Your task to perform on an android device: move a message to another label in the gmail app Image 0: 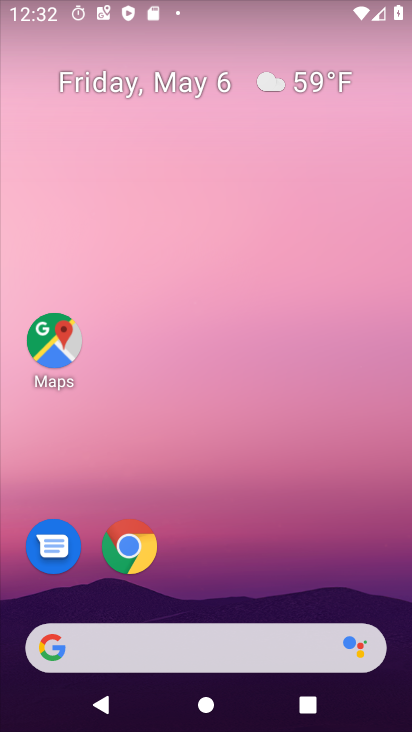
Step 0: drag from (279, 606) to (252, 114)
Your task to perform on an android device: move a message to another label in the gmail app Image 1: 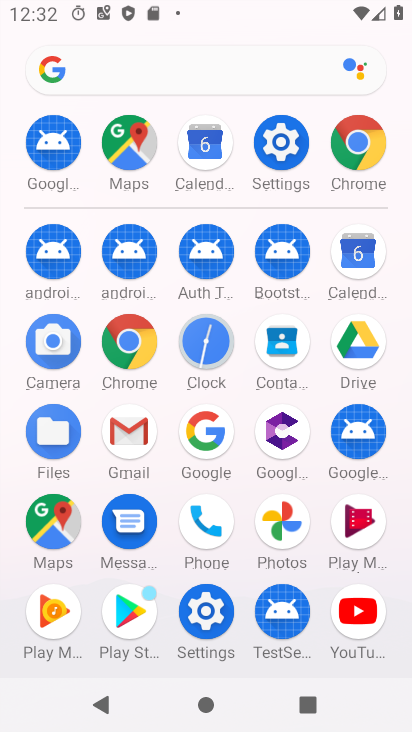
Step 1: click (129, 434)
Your task to perform on an android device: move a message to another label in the gmail app Image 2: 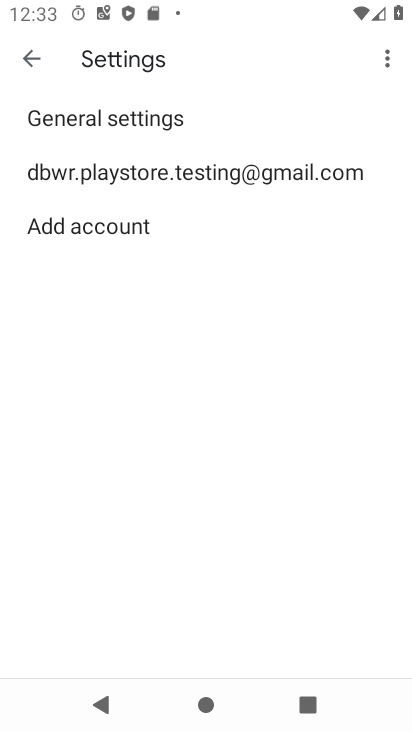
Step 2: click (39, 61)
Your task to perform on an android device: move a message to another label in the gmail app Image 3: 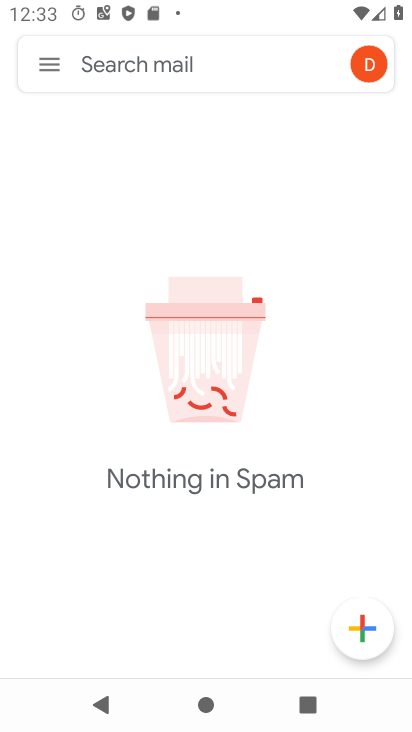
Step 3: click (57, 60)
Your task to perform on an android device: move a message to another label in the gmail app Image 4: 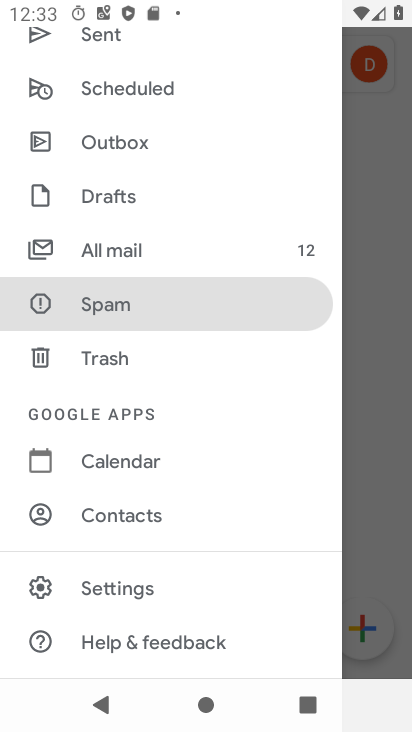
Step 4: drag from (225, 160) to (172, 621)
Your task to perform on an android device: move a message to another label in the gmail app Image 5: 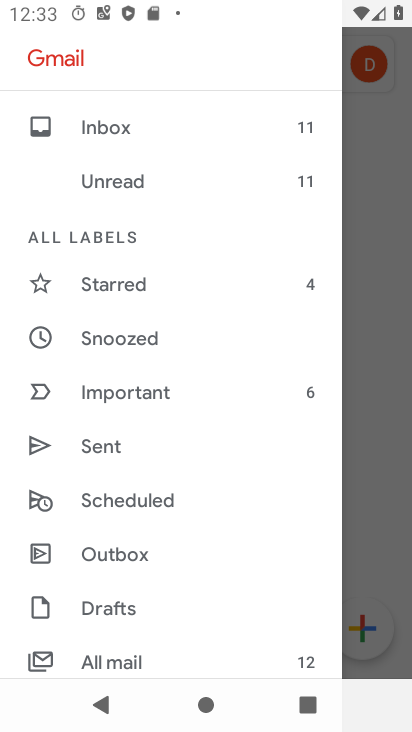
Step 5: click (140, 130)
Your task to perform on an android device: move a message to another label in the gmail app Image 6: 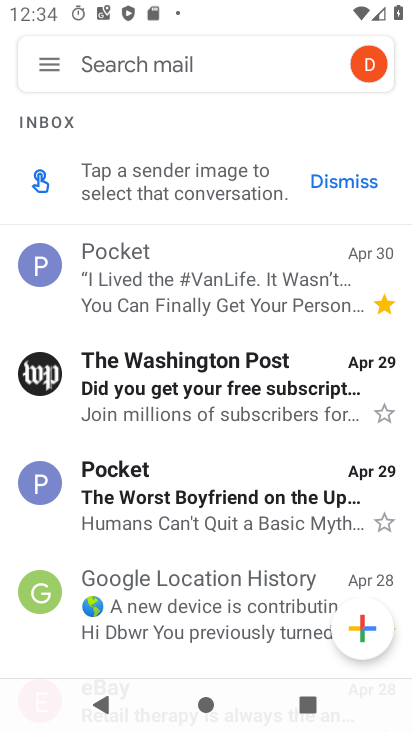
Step 6: click (312, 279)
Your task to perform on an android device: move a message to another label in the gmail app Image 7: 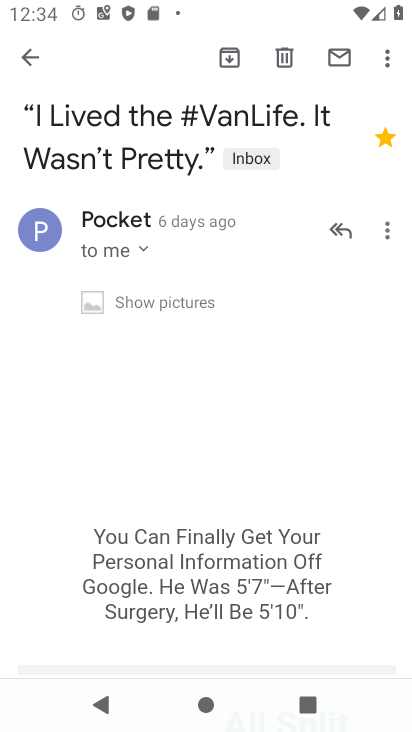
Step 7: click (392, 59)
Your task to perform on an android device: move a message to another label in the gmail app Image 8: 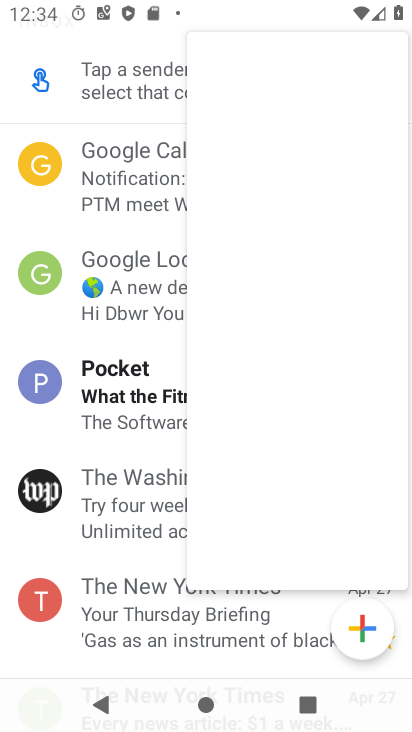
Step 8: click (48, 198)
Your task to perform on an android device: move a message to another label in the gmail app Image 9: 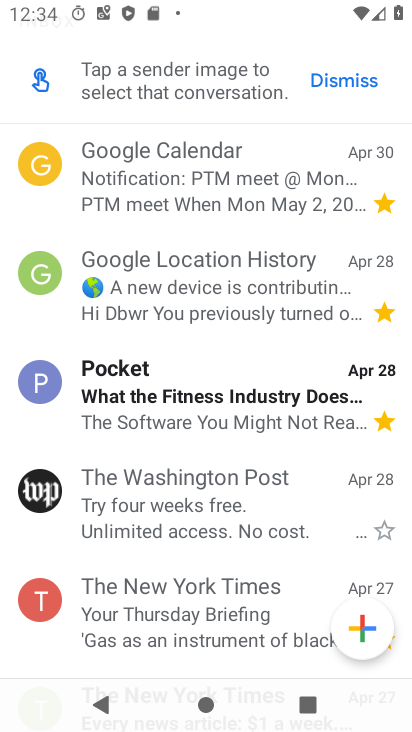
Step 9: click (352, 190)
Your task to perform on an android device: move a message to another label in the gmail app Image 10: 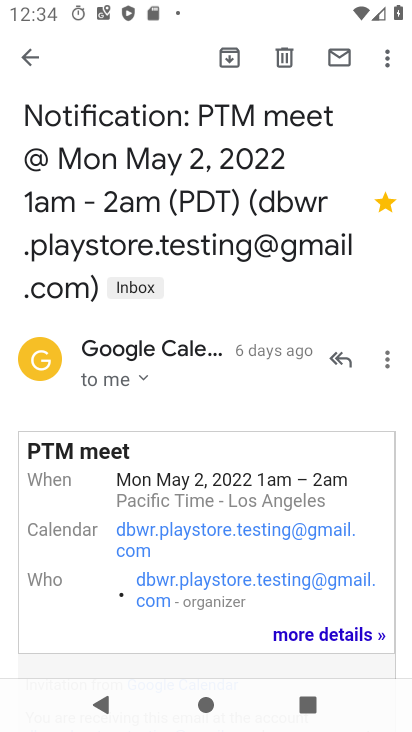
Step 10: click (393, 363)
Your task to perform on an android device: move a message to another label in the gmail app Image 11: 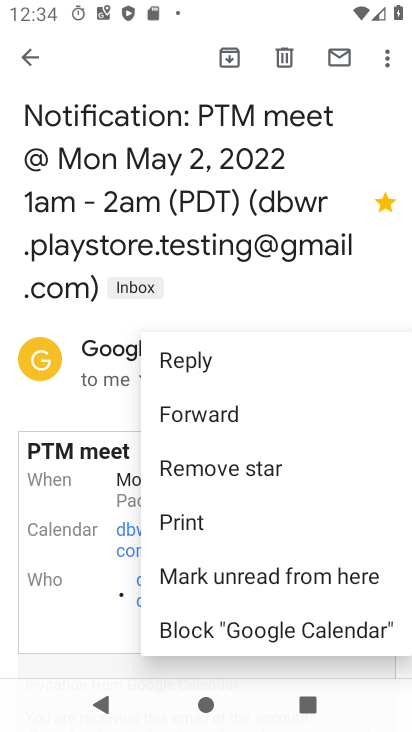
Step 11: click (392, 55)
Your task to perform on an android device: move a message to another label in the gmail app Image 12: 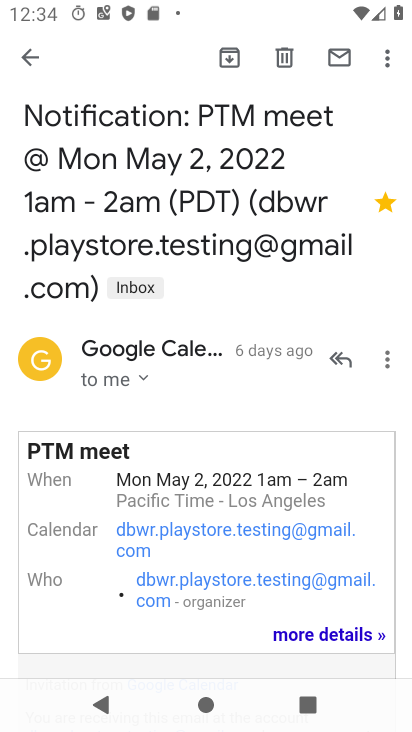
Step 12: click (390, 53)
Your task to perform on an android device: move a message to another label in the gmail app Image 13: 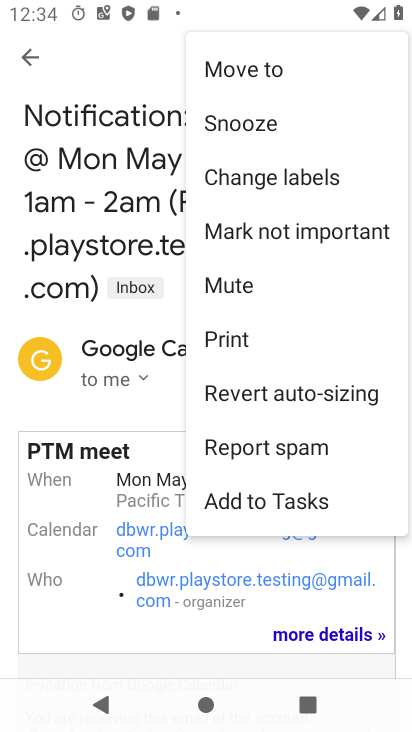
Step 13: click (280, 172)
Your task to perform on an android device: move a message to another label in the gmail app Image 14: 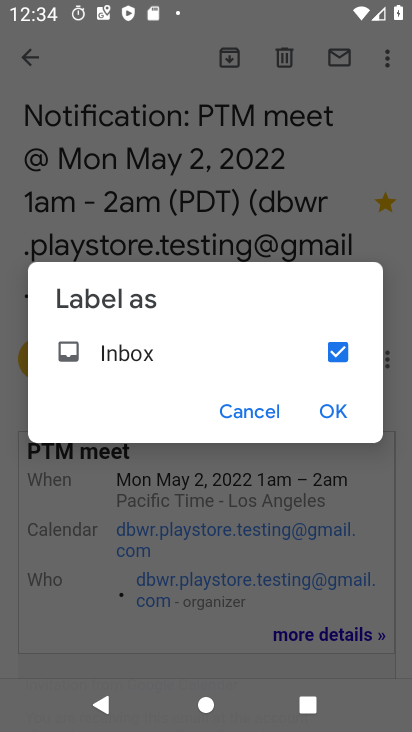
Step 14: click (343, 353)
Your task to perform on an android device: move a message to another label in the gmail app Image 15: 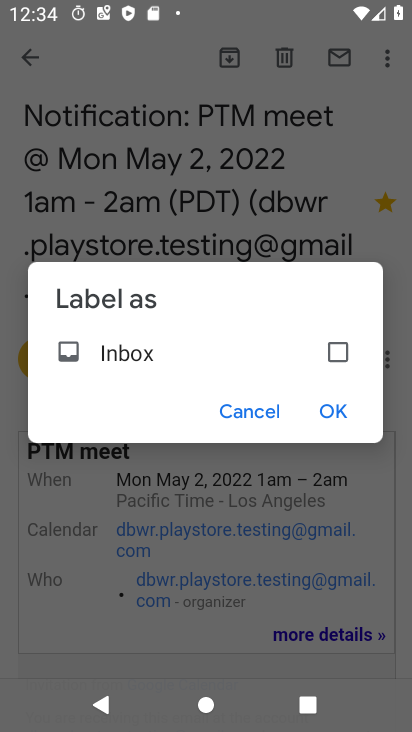
Step 15: click (336, 403)
Your task to perform on an android device: move a message to another label in the gmail app Image 16: 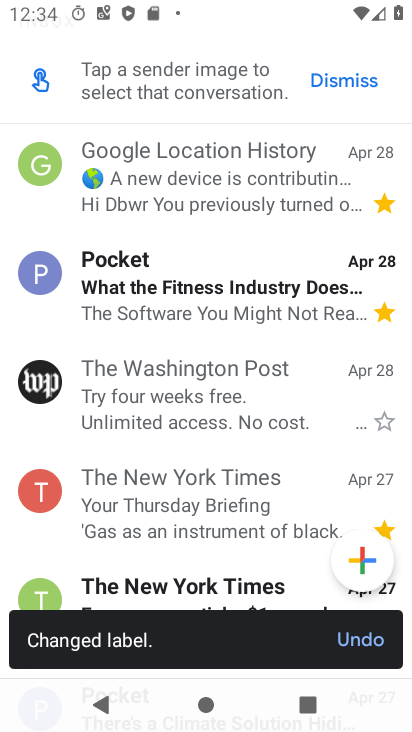
Step 16: task complete